Your task to perform on an android device: open app "PlayWell" (install if not already installed) and go to login screen Image 0: 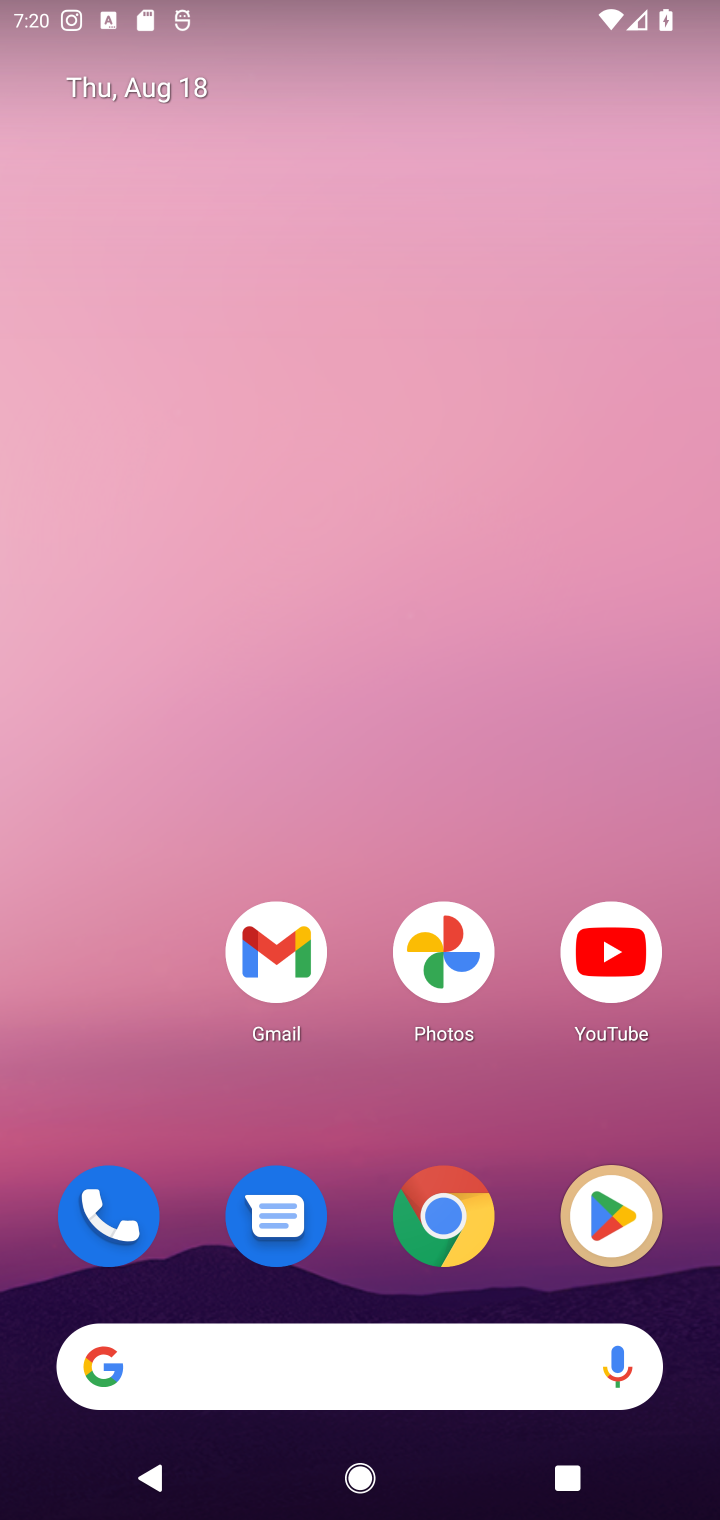
Step 0: click (582, 1227)
Your task to perform on an android device: open app "PlayWell" (install if not already installed) and go to login screen Image 1: 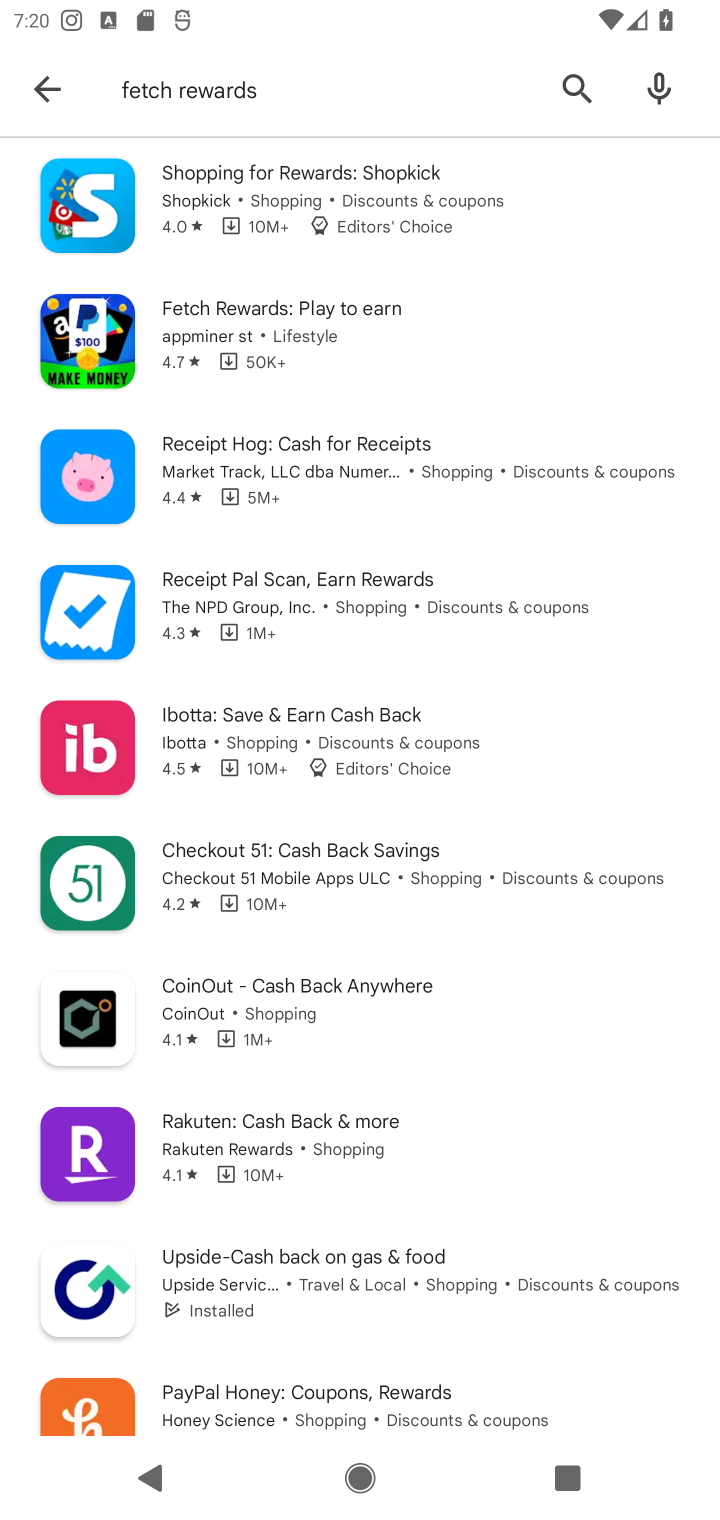
Step 1: click (562, 94)
Your task to perform on an android device: open app "PlayWell" (install if not already installed) and go to login screen Image 2: 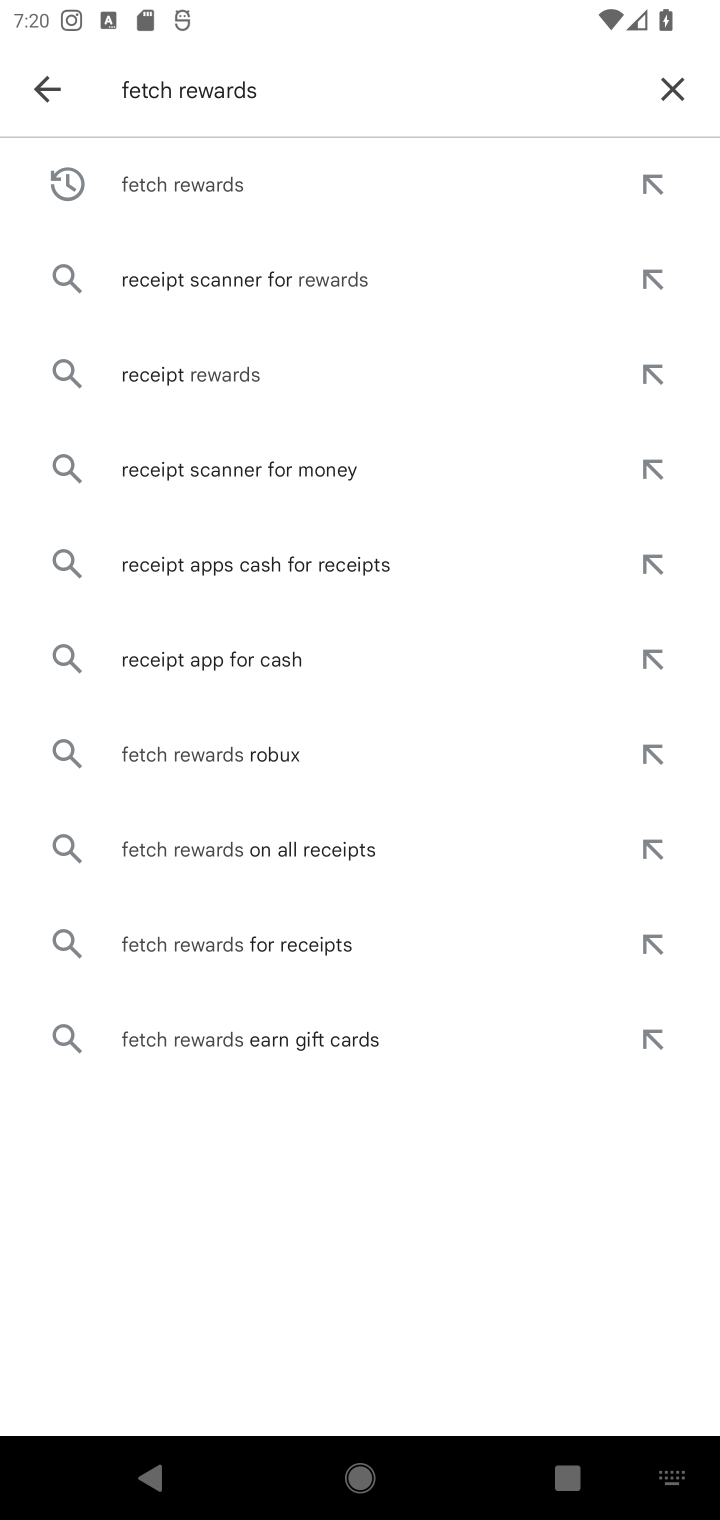
Step 2: click (663, 81)
Your task to perform on an android device: open app "PlayWell" (install if not already installed) and go to login screen Image 3: 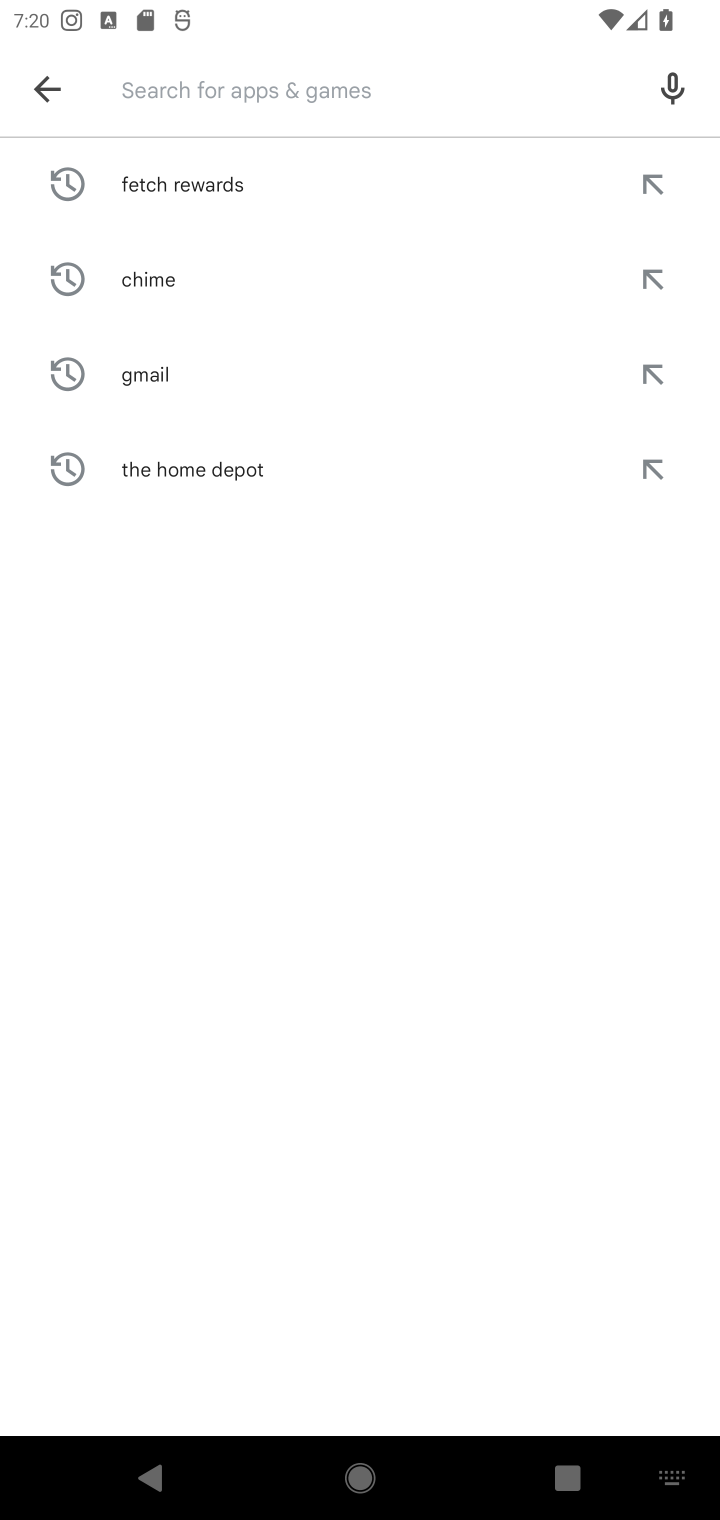
Step 3: type "PlayWell"
Your task to perform on an android device: open app "PlayWell" (install if not already installed) and go to login screen Image 4: 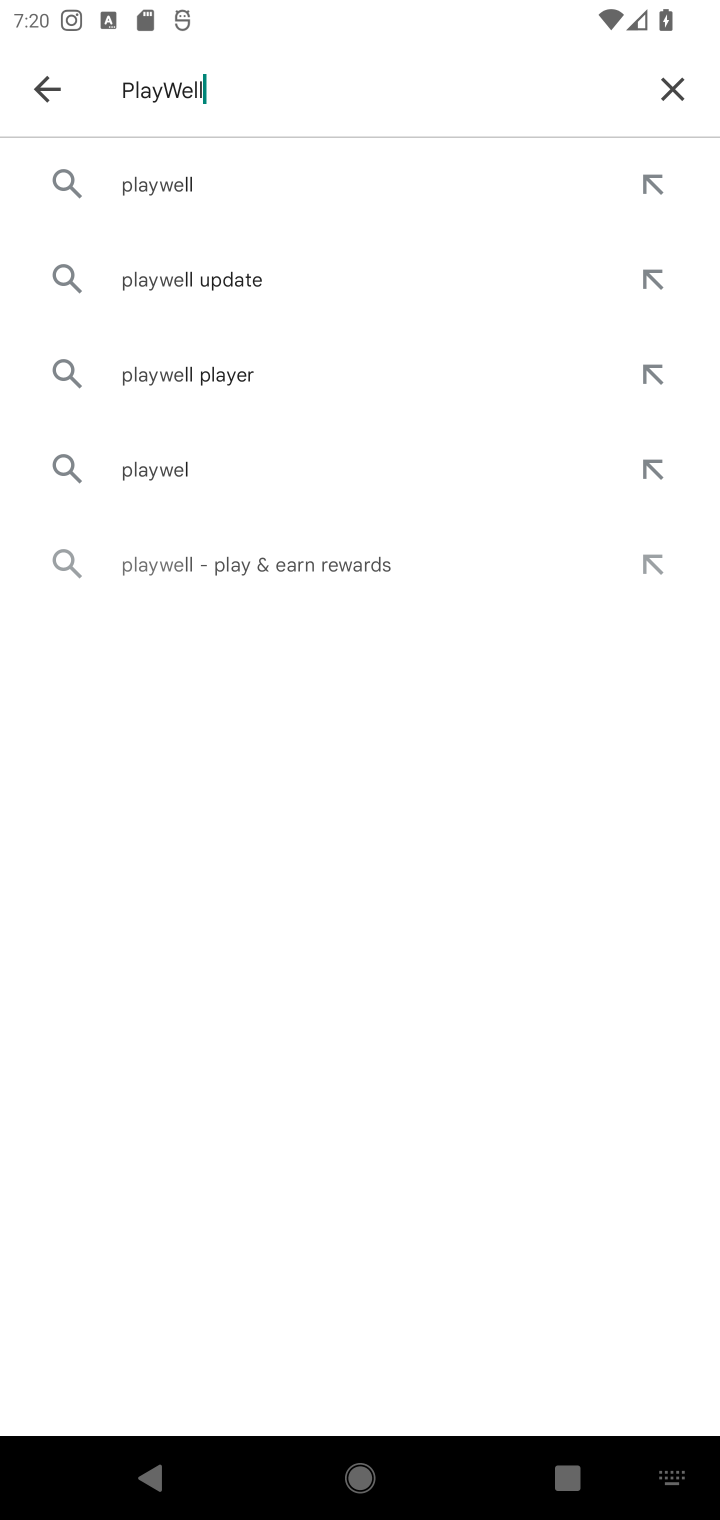
Step 4: type ""
Your task to perform on an android device: open app "PlayWell" (install if not already installed) and go to login screen Image 5: 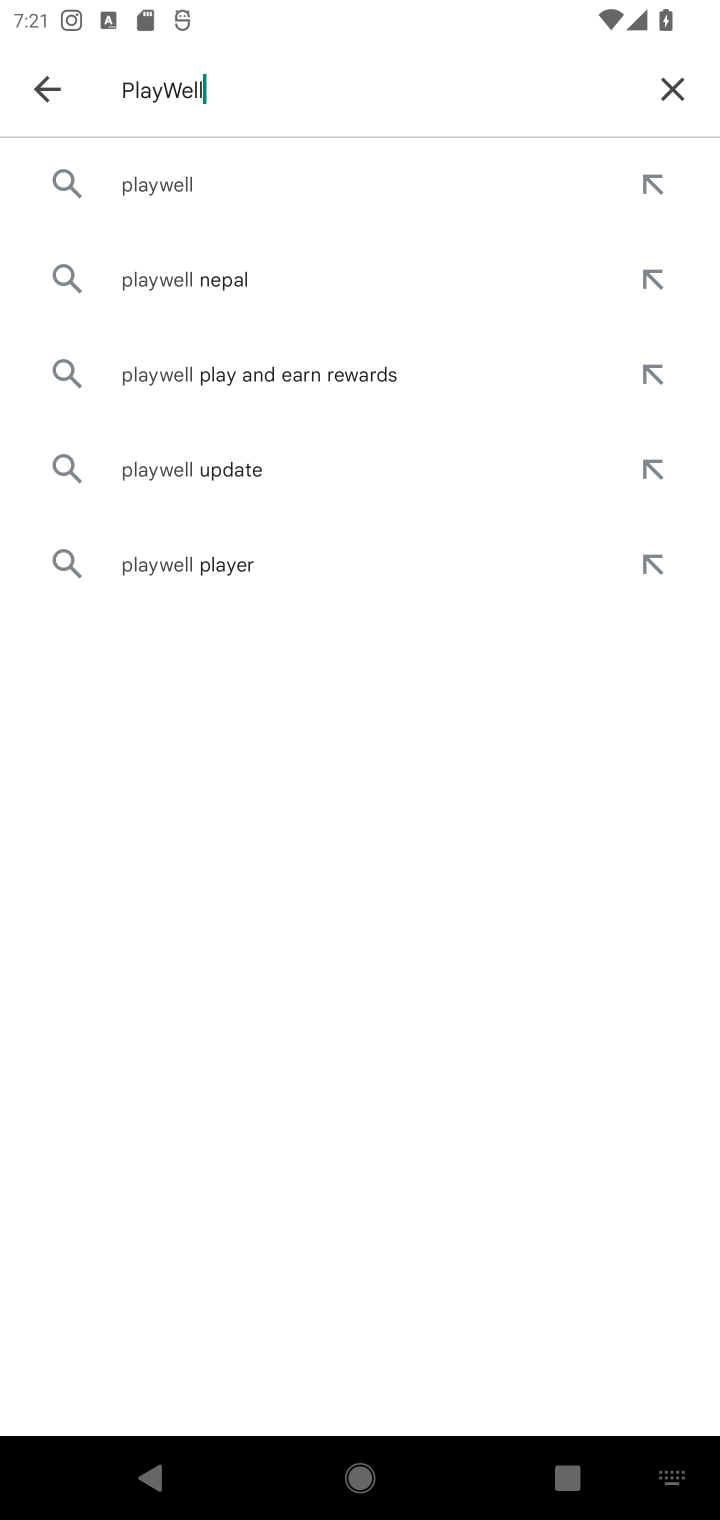
Step 5: click (170, 191)
Your task to perform on an android device: open app "PlayWell" (install if not already installed) and go to login screen Image 6: 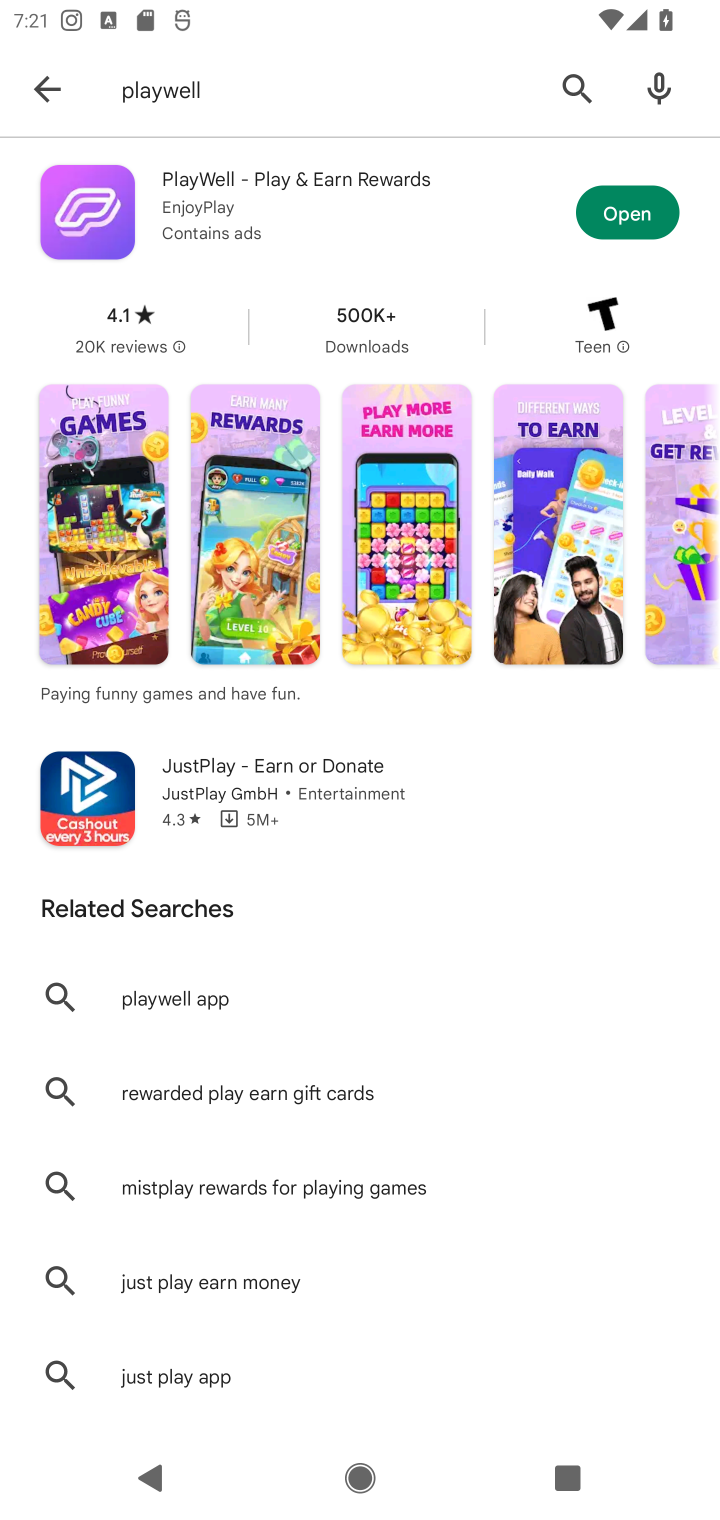
Step 6: click (644, 202)
Your task to perform on an android device: open app "PlayWell" (install if not already installed) and go to login screen Image 7: 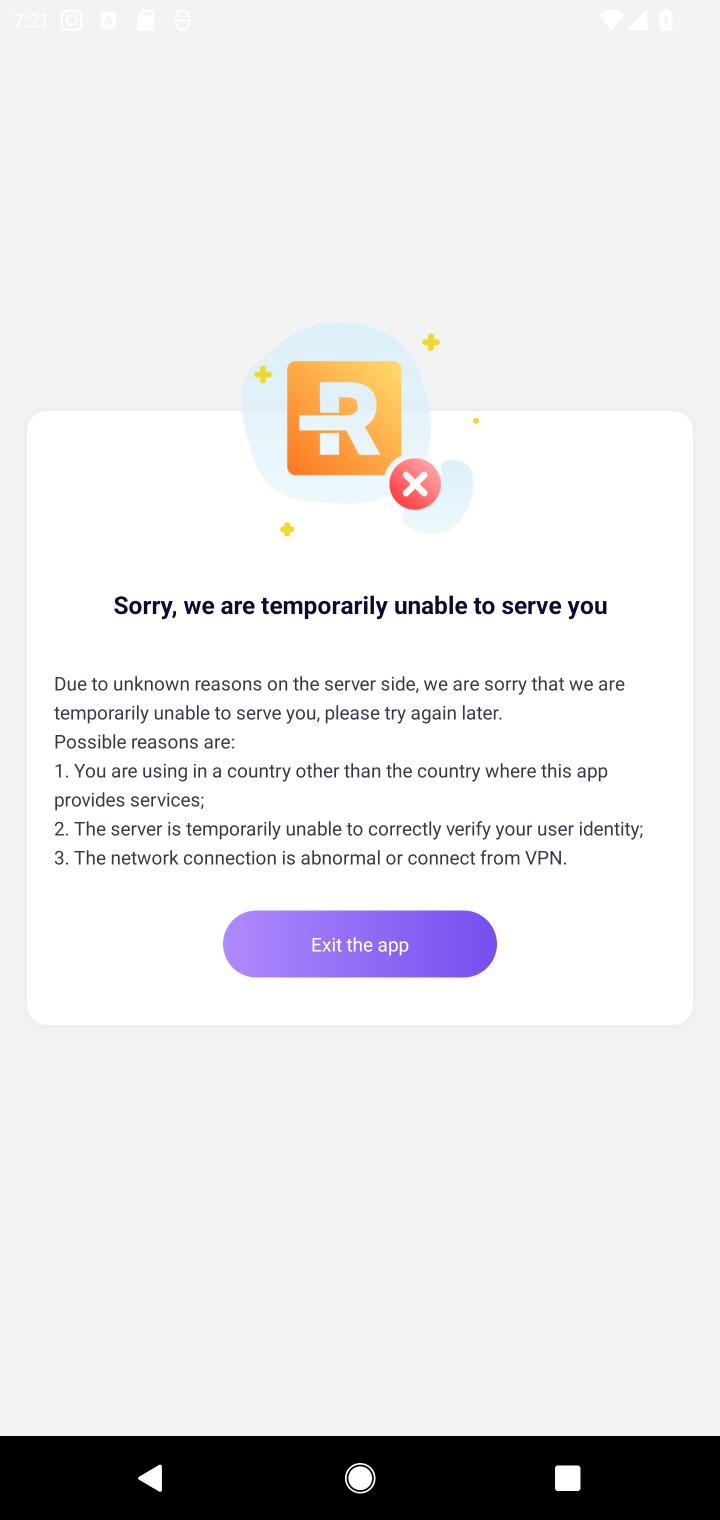
Step 7: task complete